Your task to perform on an android device: Open CNN.com Image 0: 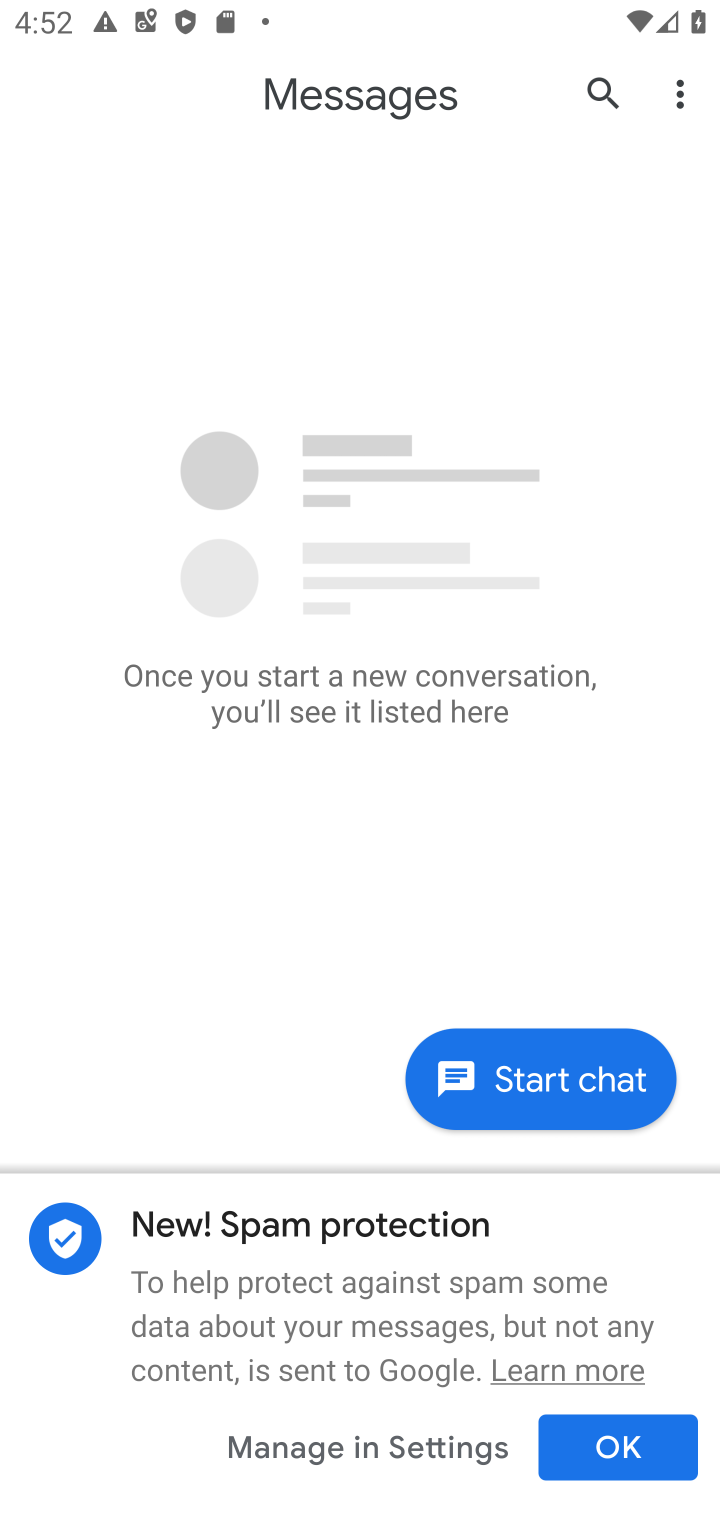
Step 0: press home button
Your task to perform on an android device: Open CNN.com Image 1: 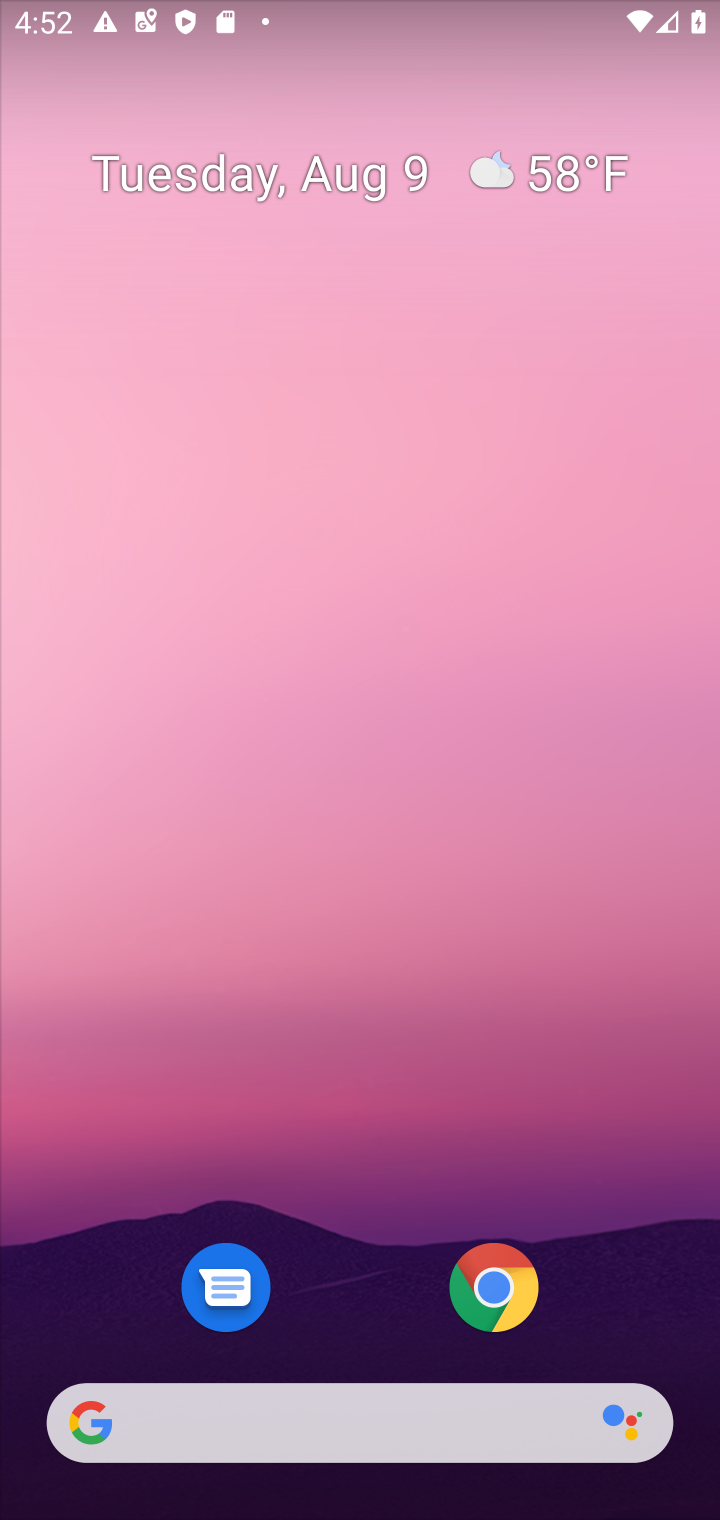
Step 1: click (298, 1436)
Your task to perform on an android device: Open CNN.com Image 2: 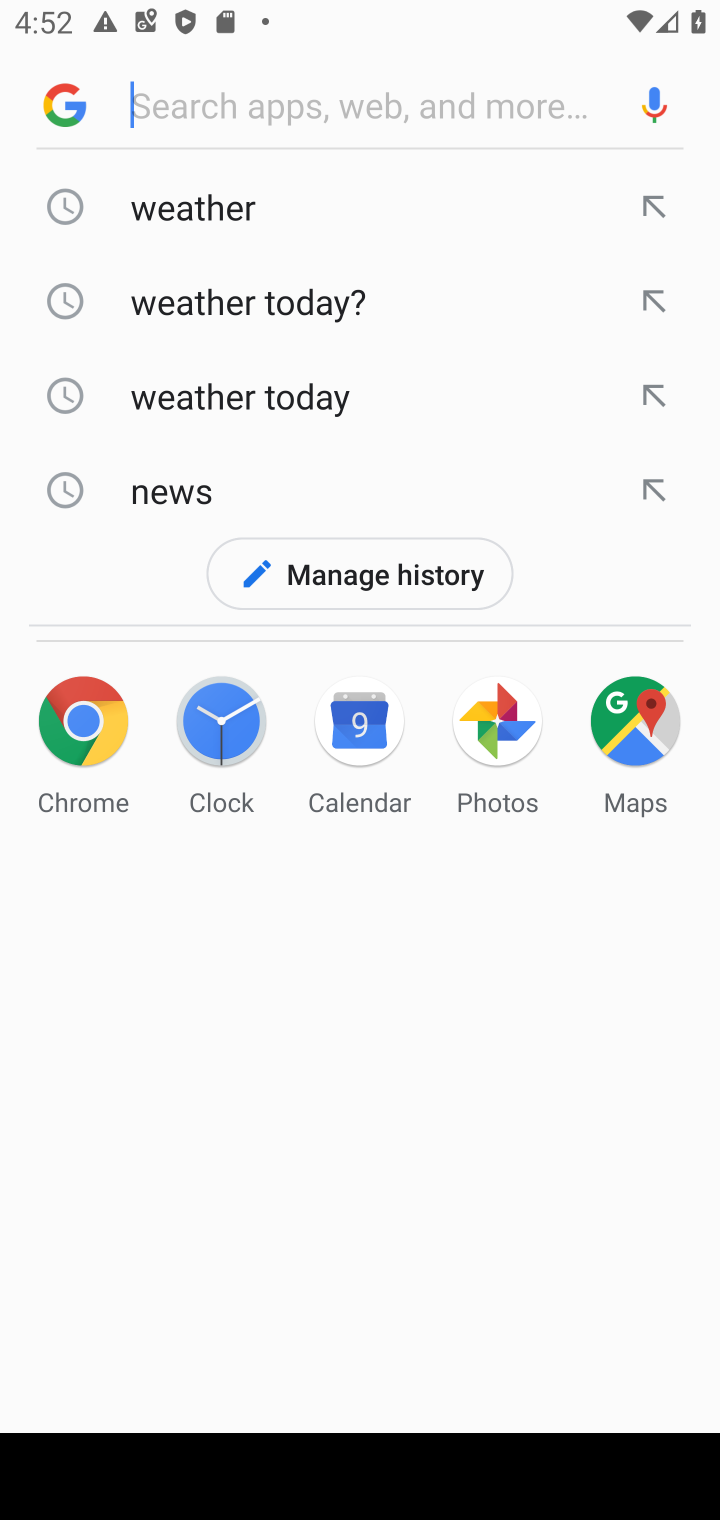
Step 2: type "CNN.com"
Your task to perform on an android device: Open CNN.com Image 3: 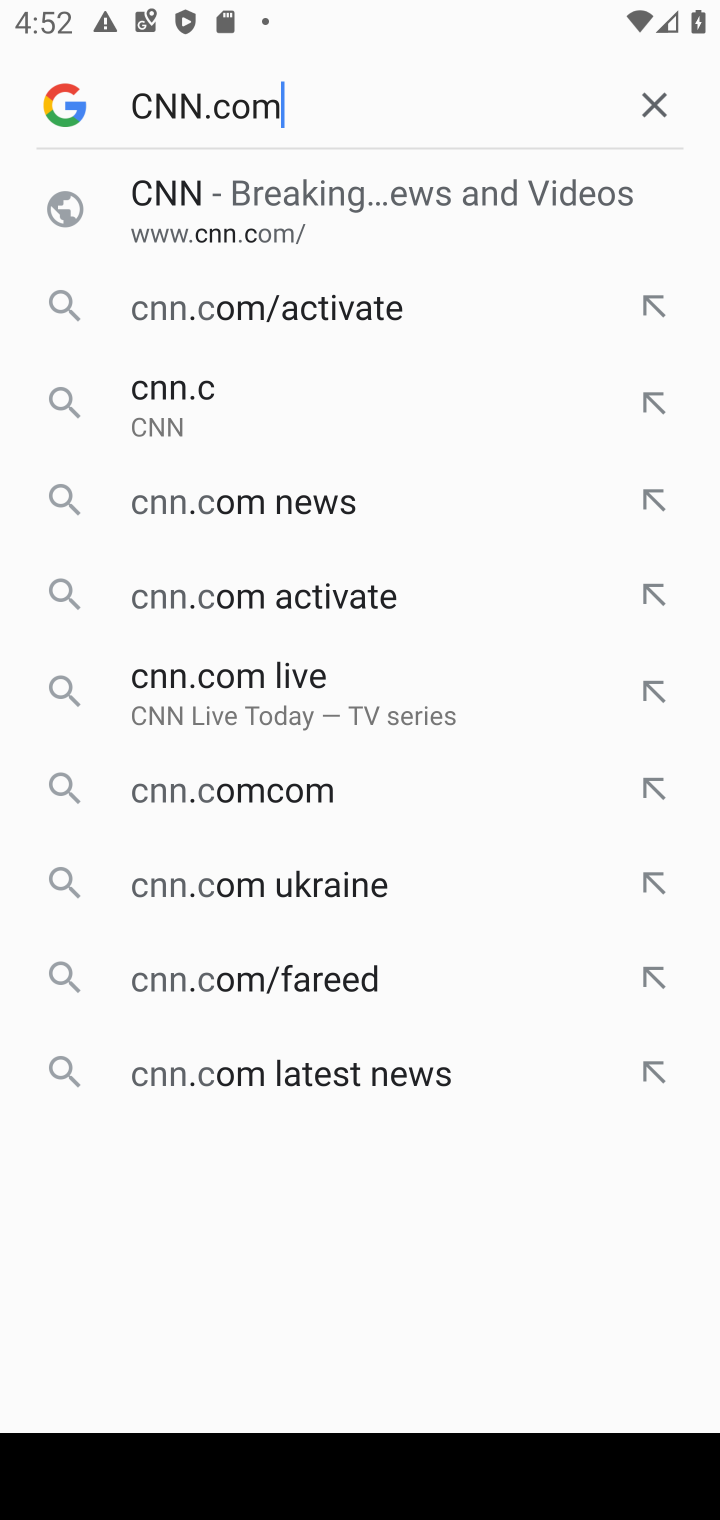
Step 3: press enter
Your task to perform on an android device: Open CNN.com Image 4: 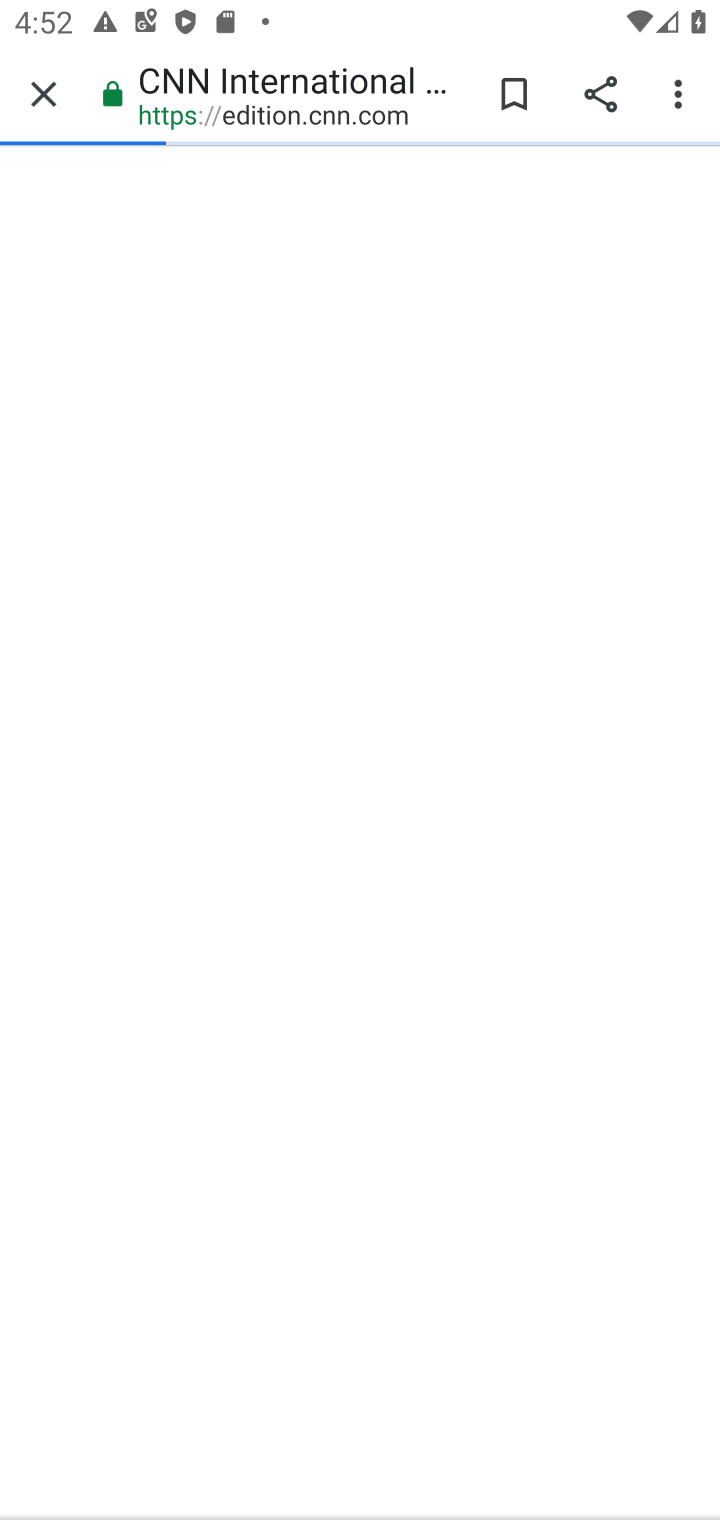
Step 4: task complete